Your task to perform on an android device: Open calendar and show me the first week of next month Image 0: 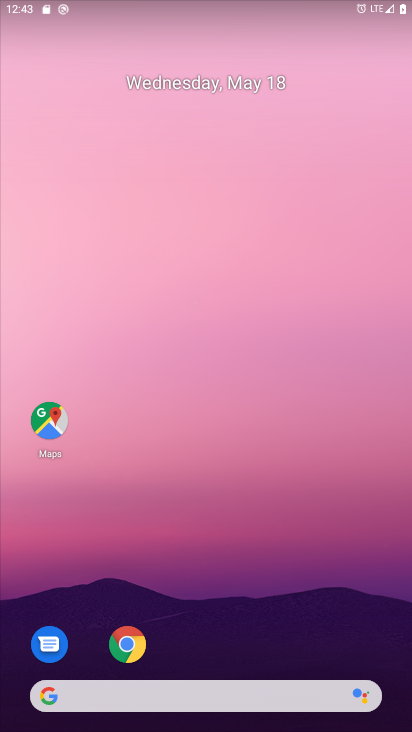
Step 0: press home button
Your task to perform on an android device: Open calendar and show me the first week of next month Image 1: 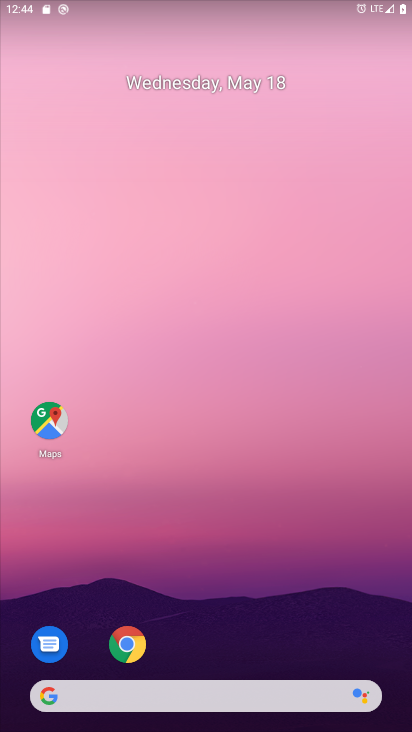
Step 1: drag from (208, 662) to (240, 25)
Your task to perform on an android device: Open calendar and show me the first week of next month Image 2: 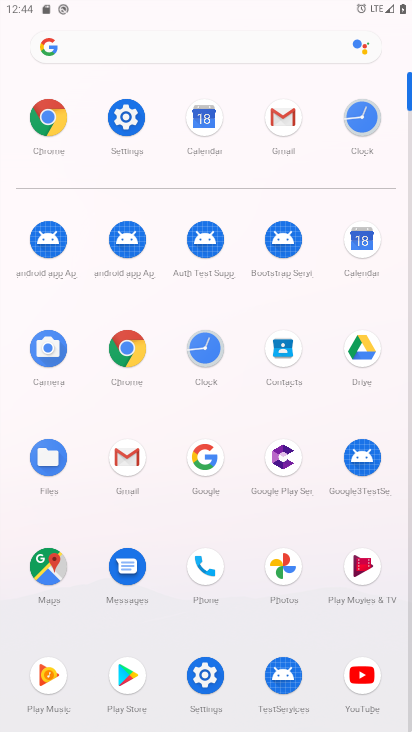
Step 2: click (355, 240)
Your task to perform on an android device: Open calendar and show me the first week of next month Image 3: 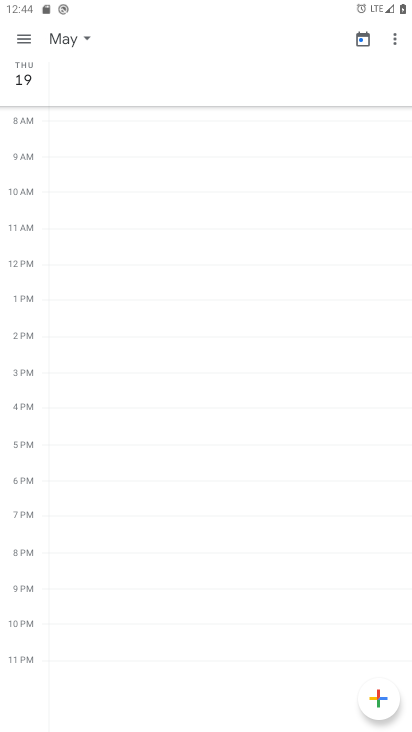
Step 3: click (82, 35)
Your task to perform on an android device: Open calendar and show me the first week of next month Image 4: 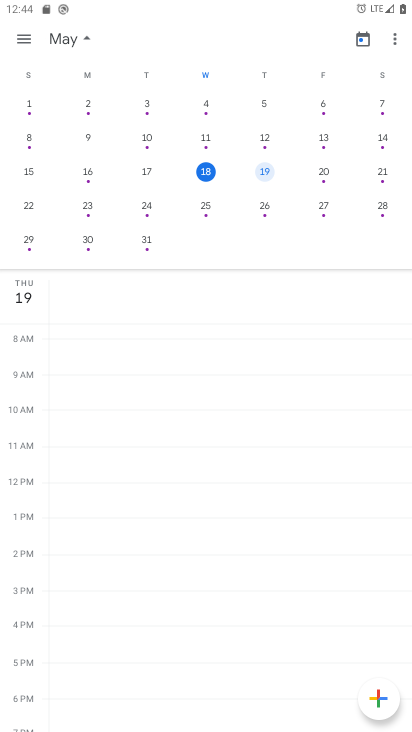
Step 4: drag from (374, 172) to (0, 183)
Your task to perform on an android device: Open calendar and show me the first week of next month Image 5: 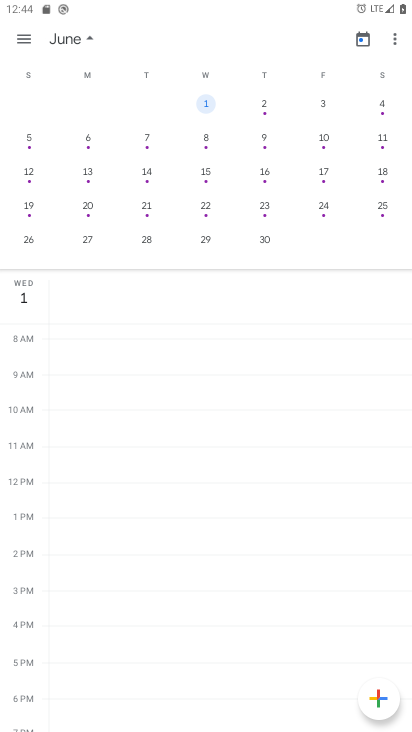
Step 5: click (210, 98)
Your task to perform on an android device: Open calendar and show me the first week of next month Image 6: 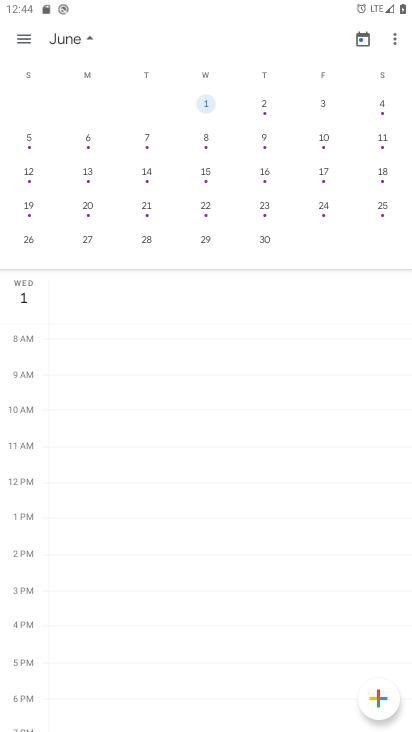
Step 6: click (88, 35)
Your task to perform on an android device: Open calendar and show me the first week of next month Image 7: 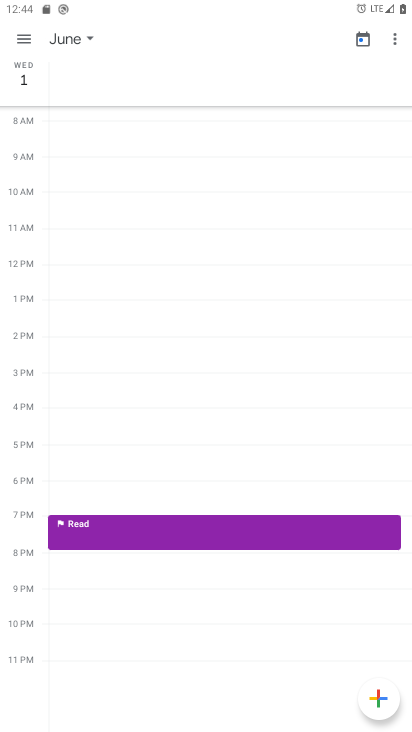
Step 7: click (28, 78)
Your task to perform on an android device: Open calendar and show me the first week of next month Image 8: 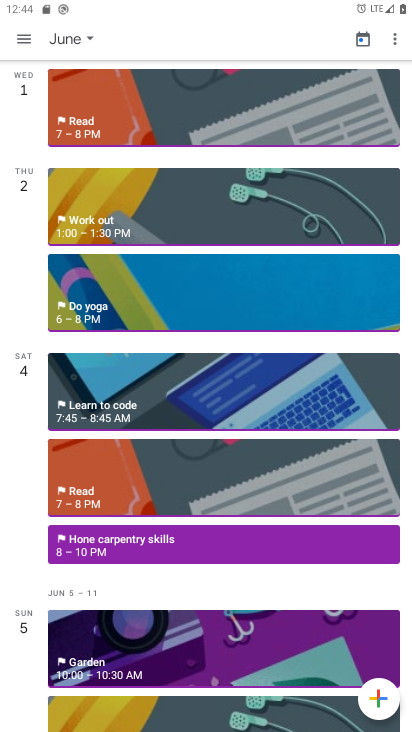
Step 8: task complete